Your task to perform on an android device: Go to Reddit.com Image 0: 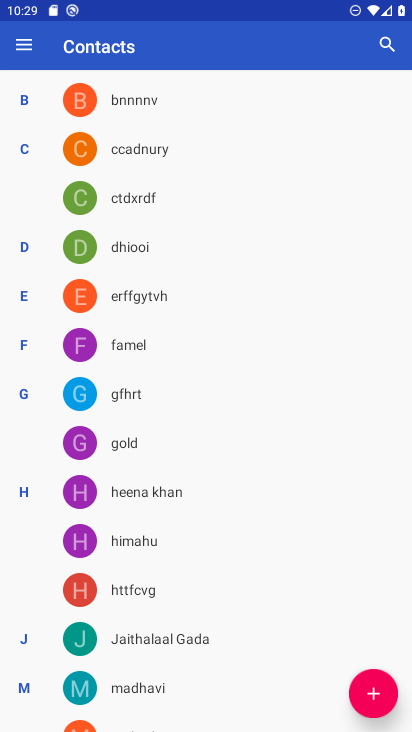
Step 0: press home button
Your task to perform on an android device: Go to Reddit.com Image 1: 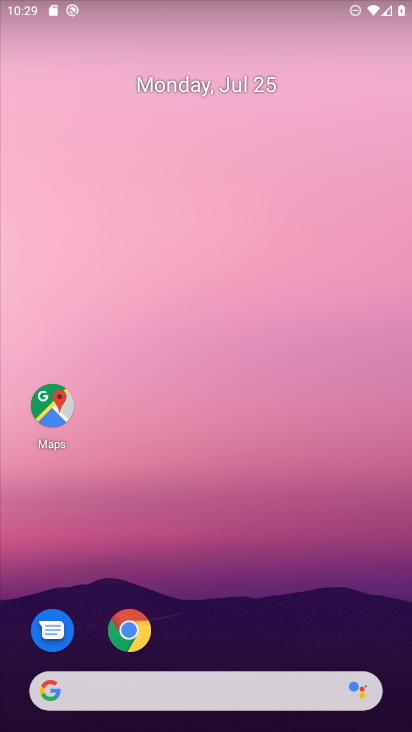
Step 1: drag from (300, 656) to (149, 104)
Your task to perform on an android device: Go to Reddit.com Image 2: 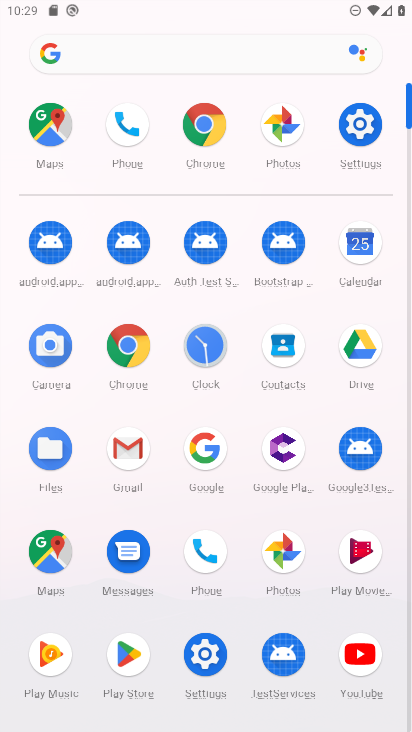
Step 2: click (205, 130)
Your task to perform on an android device: Go to Reddit.com Image 3: 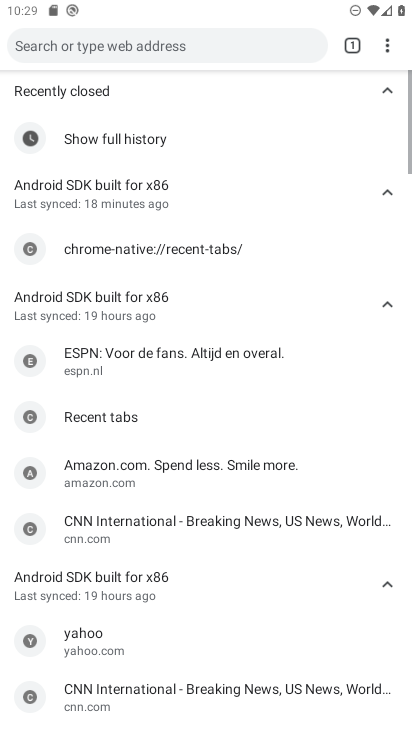
Step 3: click (204, 57)
Your task to perform on an android device: Go to Reddit.com Image 4: 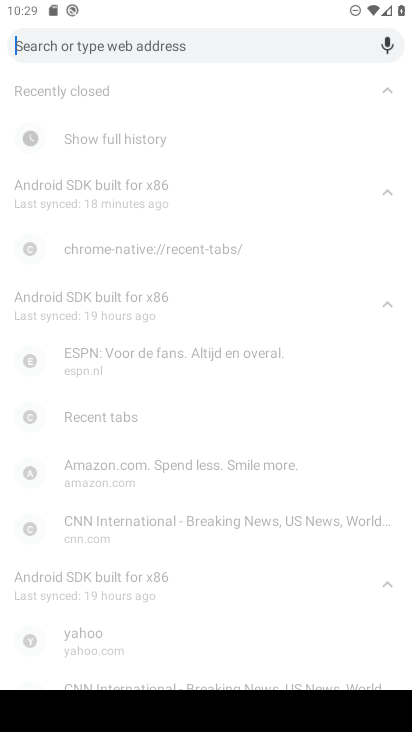
Step 4: type "reddit.com"
Your task to perform on an android device: Go to Reddit.com Image 5: 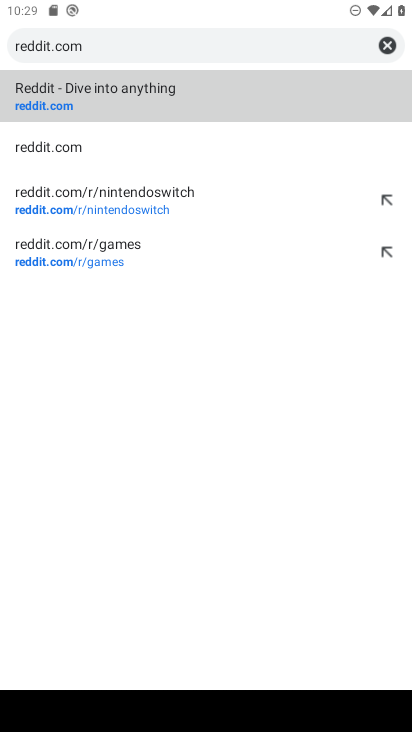
Step 5: click (130, 105)
Your task to perform on an android device: Go to Reddit.com Image 6: 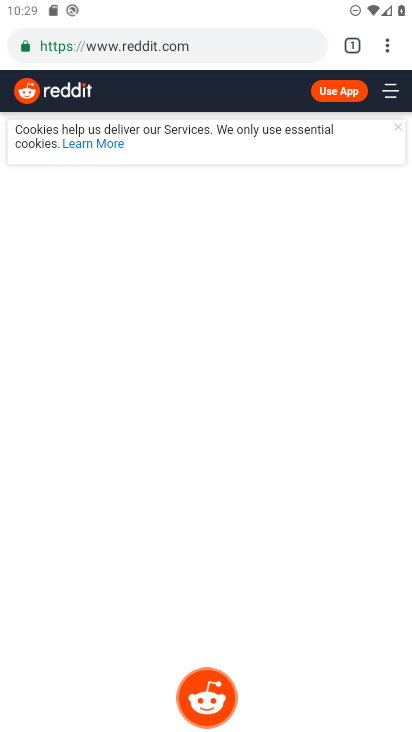
Step 6: task complete